Your task to perform on an android device: Open Google Chrome Image 0: 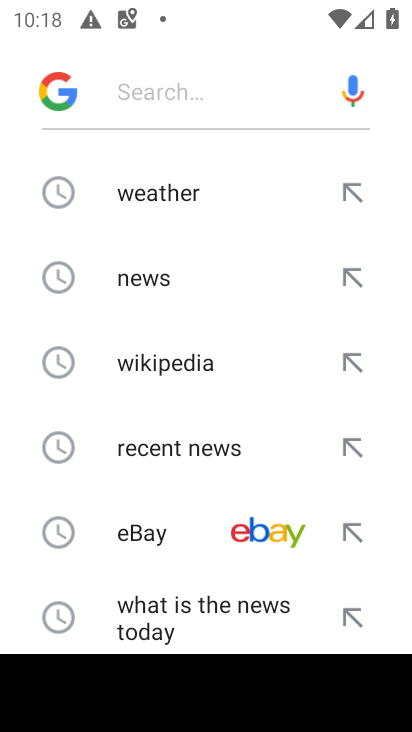
Step 0: press home button
Your task to perform on an android device: Open Google Chrome Image 1: 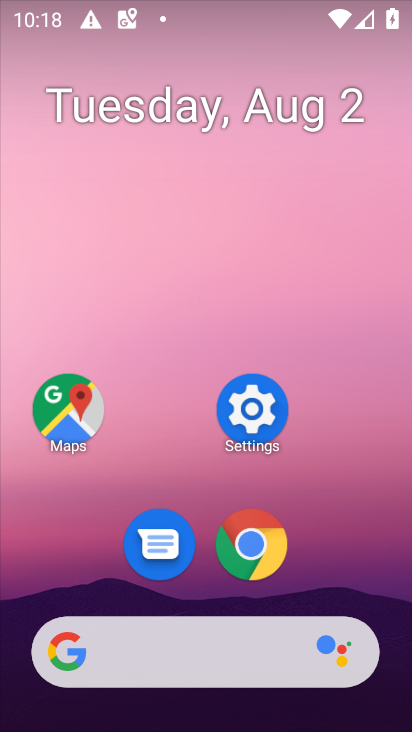
Step 1: click (241, 557)
Your task to perform on an android device: Open Google Chrome Image 2: 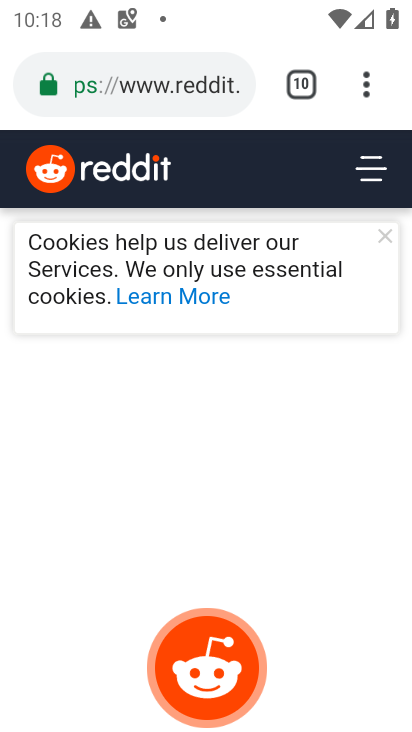
Step 2: task complete